Your task to perform on an android device: turn on airplane mode Image 0: 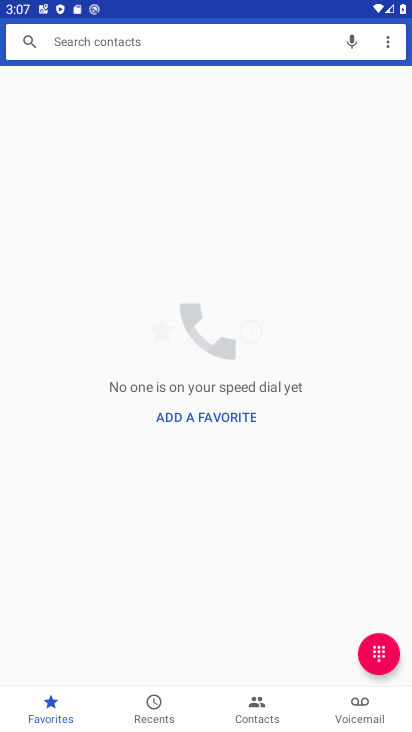
Step 0: press home button
Your task to perform on an android device: turn on airplane mode Image 1: 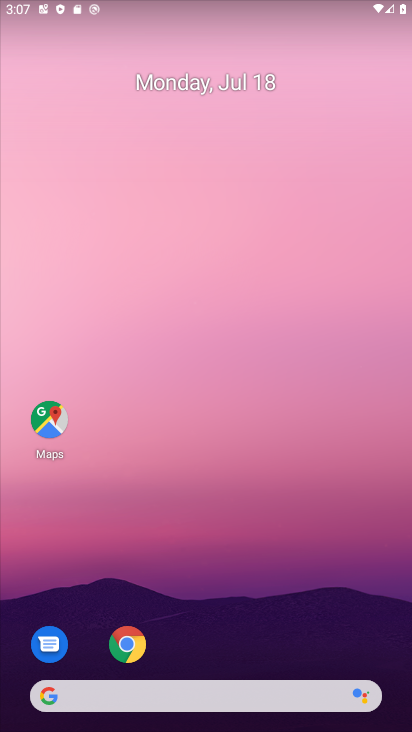
Step 1: drag from (388, 654) to (316, 94)
Your task to perform on an android device: turn on airplane mode Image 2: 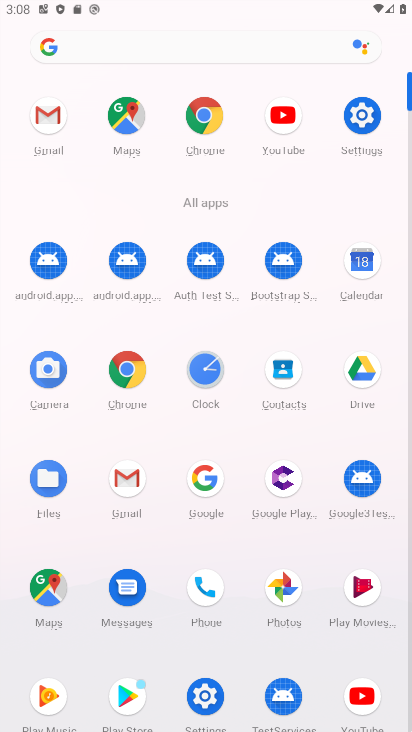
Step 2: click (203, 698)
Your task to perform on an android device: turn on airplane mode Image 3: 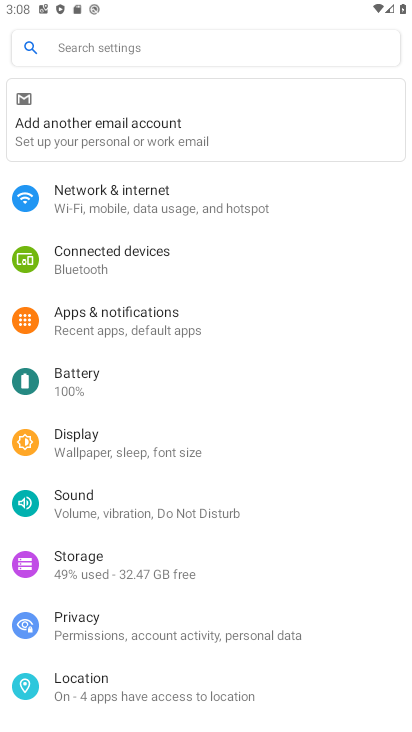
Step 3: click (98, 191)
Your task to perform on an android device: turn on airplane mode Image 4: 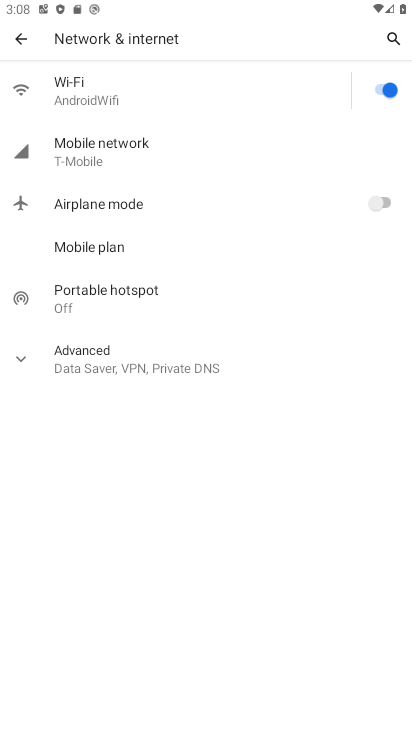
Step 4: click (384, 198)
Your task to perform on an android device: turn on airplane mode Image 5: 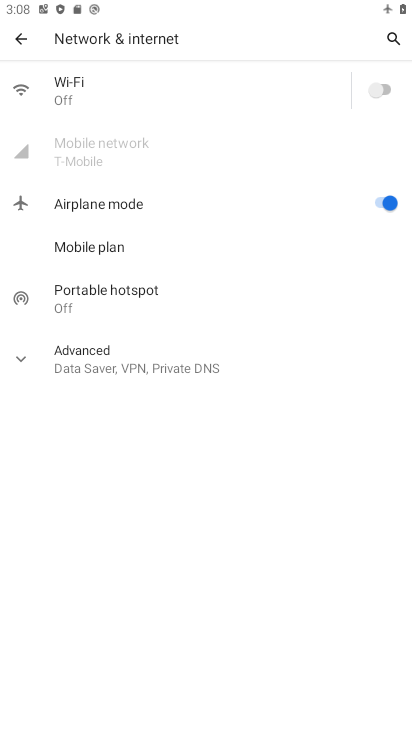
Step 5: task complete